Your task to perform on an android device: Go to calendar. Show me events next week Image 0: 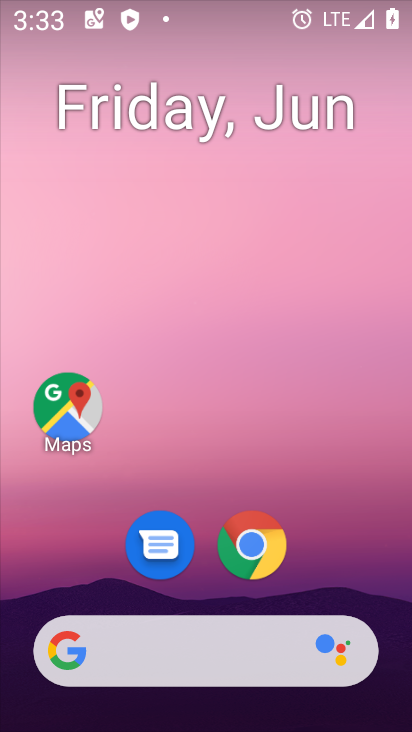
Step 0: drag from (341, 571) to (332, 63)
Your task to perform on an android device: Go to calendar. Show me events next week Image 1: 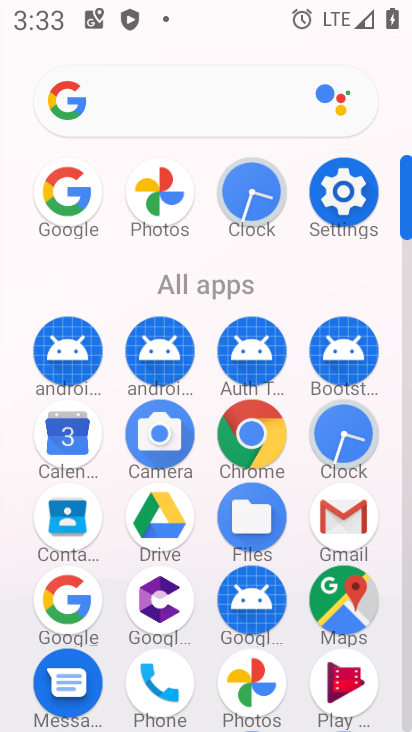
Step 1: click (58, 443)
Your task to perform on an android device: Go to calendar. Show me events next week Image 2: 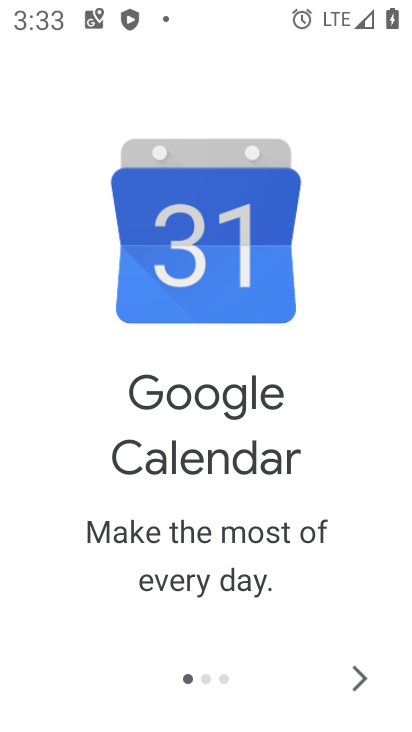
Step 2: click (346, 678)
Your task to perform on an android device: Go to calendar. Show me events next week Image 3: 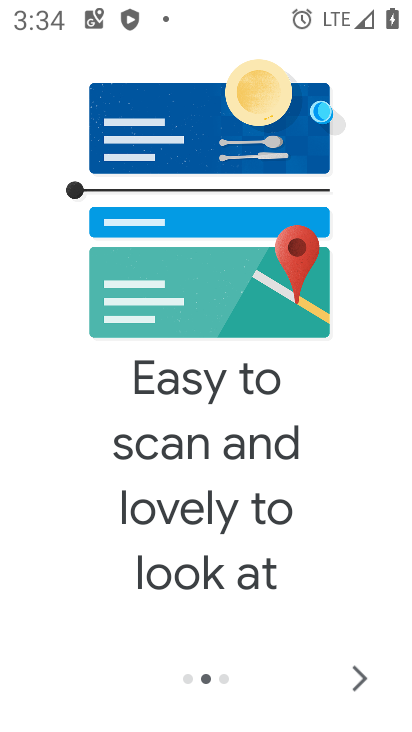
Step 3: click (350, 684)
Your task to perform on an android device: Go to calendar. Show me events next week Image 4: 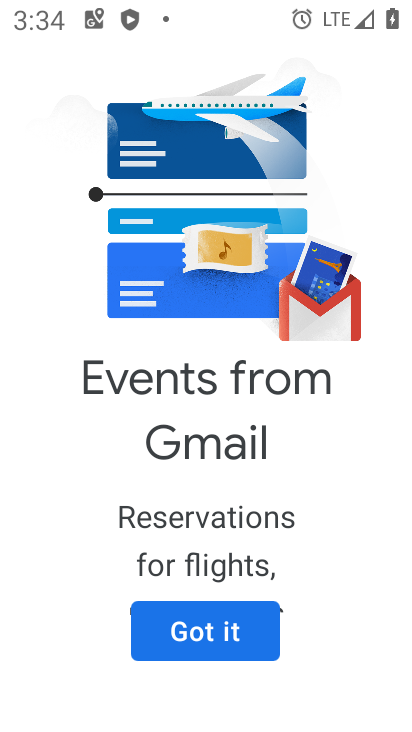
Step 4: click (249, 636)
Your task to perform on an android device: Go to calendar. Show me events next week Image 5: 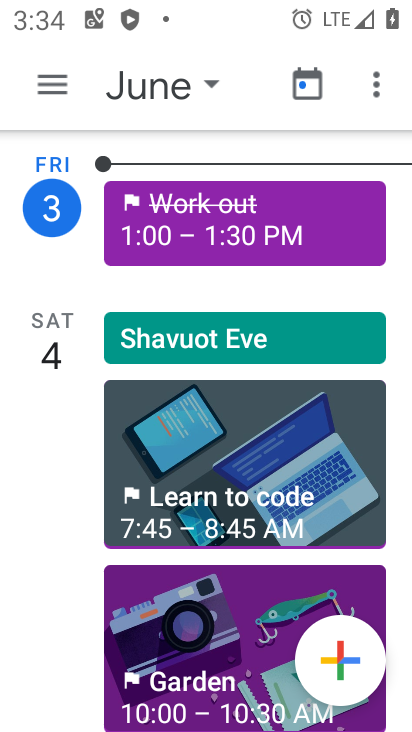
Step 5: click (137, 93)
Your task to perform on an android device: Go to calendar. Show me events next week Image 6: 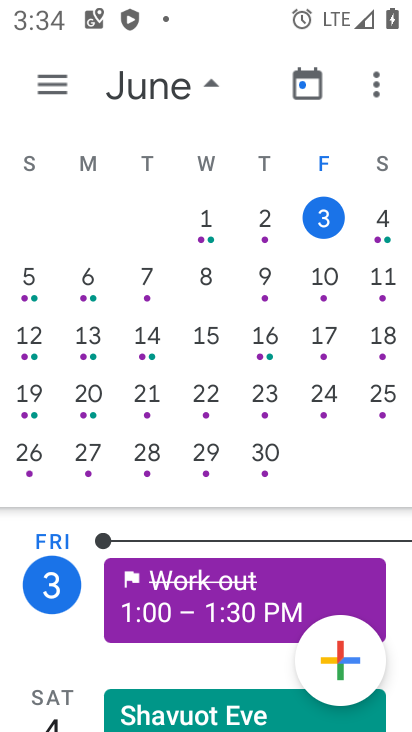
Step 6: click (36, 282)
Your task to perform on an android device: Go to calendar. Show me events next week Image 7: 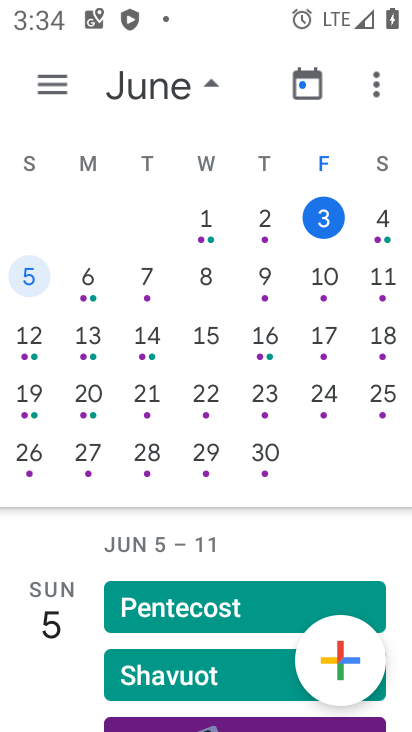
Step 7: drag from (76, 587) to (211, 4)
Your task to perform on an android device: Go to calendar. Show me events next week Image 8: 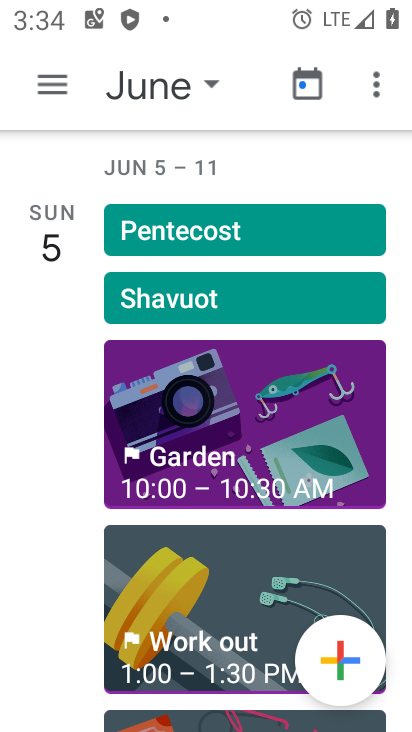
Step 8: drag from (39, 544) to (163, 0)
Your task to perform on an android device: Go to calendar. Show me events next week Image 9: 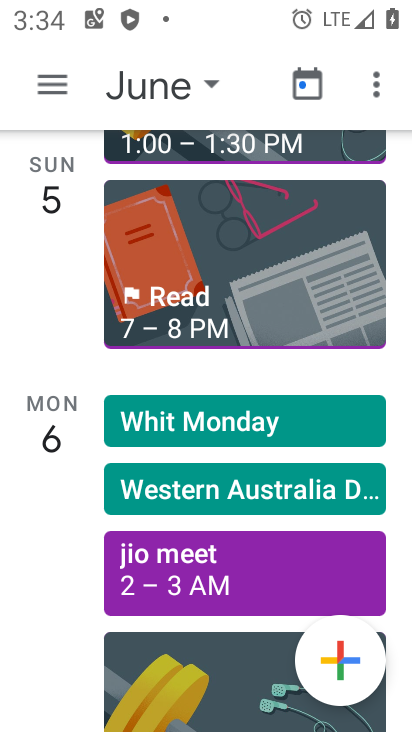
Step 9: drag from (135, 54) to (214, 0)
Your task to perform on an android device: Go to calendar. Show me events next week Image 10: 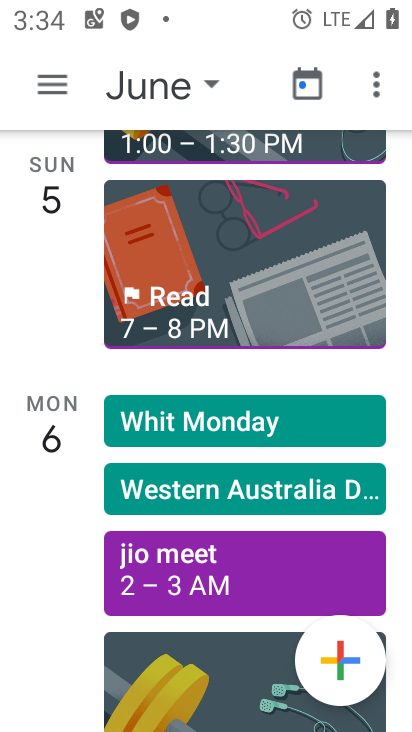
Step 10: drag from (37, 540) to (220, 0)
Your task to perform on an android device: Go to calendar. Show me events next week Image 11: 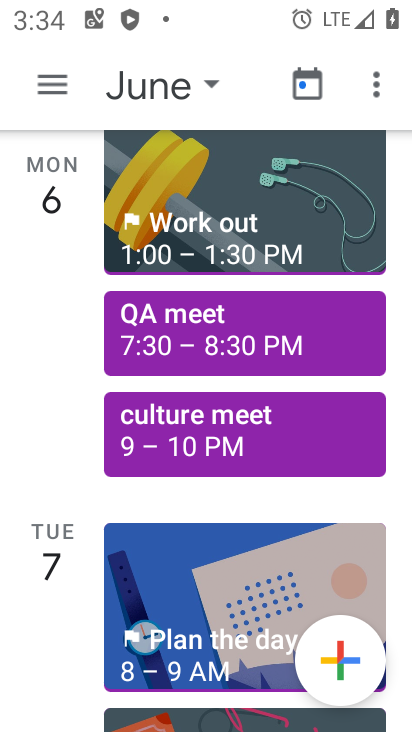
Step 11: drag from (87, 473) to (111, 1)
Your task to perform on an android device: Go to calendar. Show me events next week Image 12: 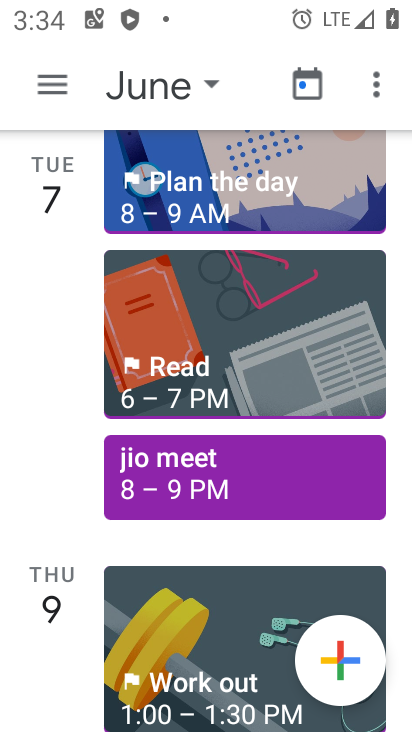
Step 12: drag from (23, 410) to (58, 15)
Your task to perform on an android device: Go to calendar. Show me events next week Image 13: 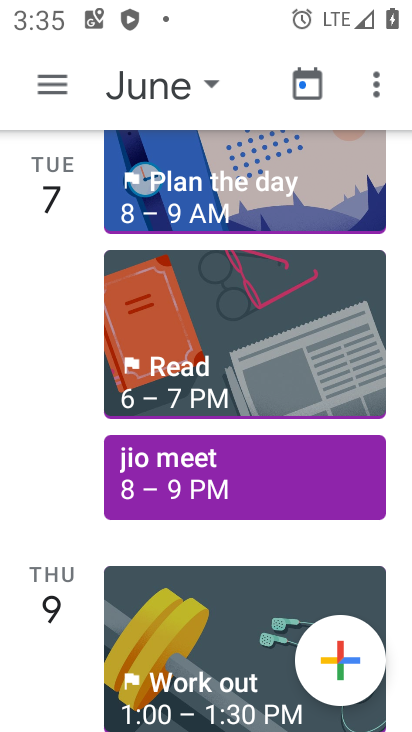
Step 13: drag from (58, 554) to (170, 21)
Your task to perform on an android device: Go to calendar. Show me events next week Image 14: 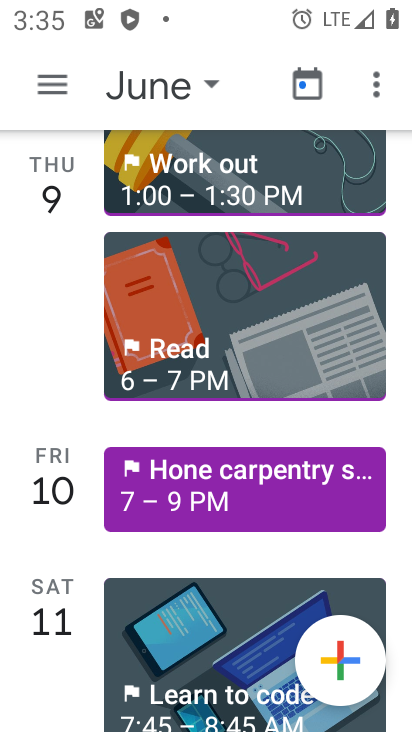
Step 14: click (103, 8)
Your task to perform on an android device: Go to calendar. Show me events next week Image 15: 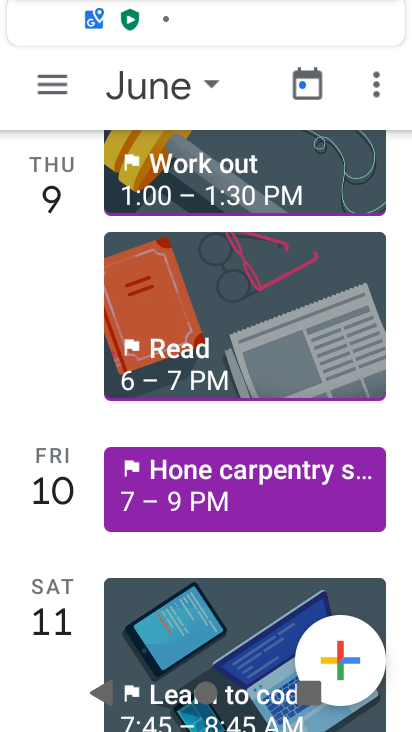
Step 15: task complete